Your task to perform on an android device: turn smart compose on in the gmail app Image 0: 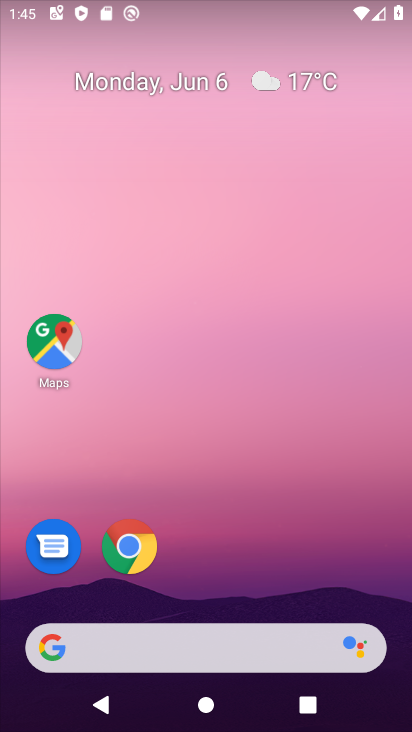
Step 0: drag from (229, 594) to (272, 240)
Your task to perform on an android device: turn smart compose on in the gmail app Image 1: 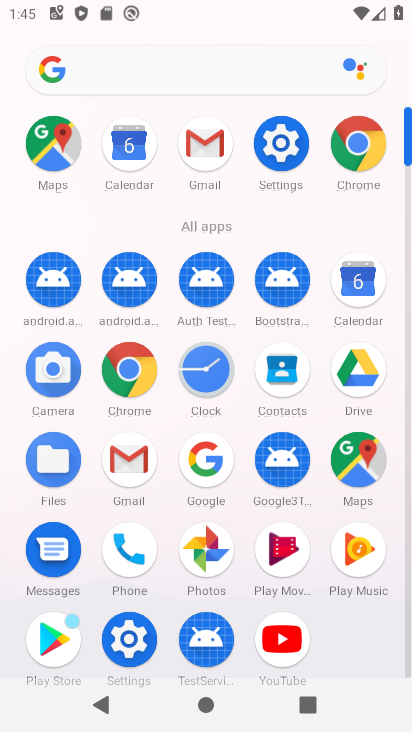
Step 1: click (207, 145)
Your task to perform on an android device: turn smart compose on in the gmail app Image 2: 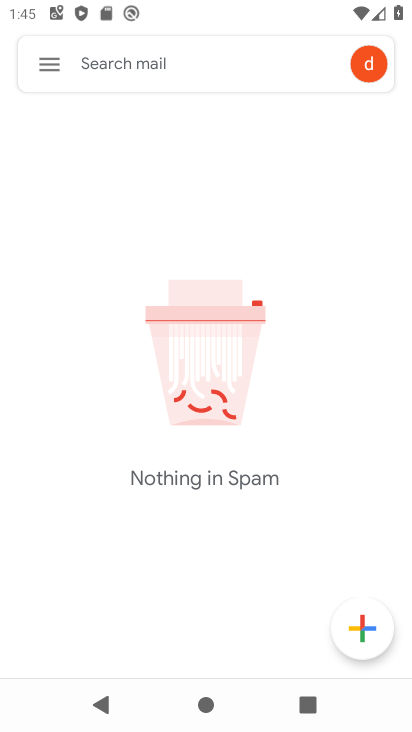
Step 2: click (43, 62)
Your task to perform on an android device: turn smart compose on in the gmail app Image 3: 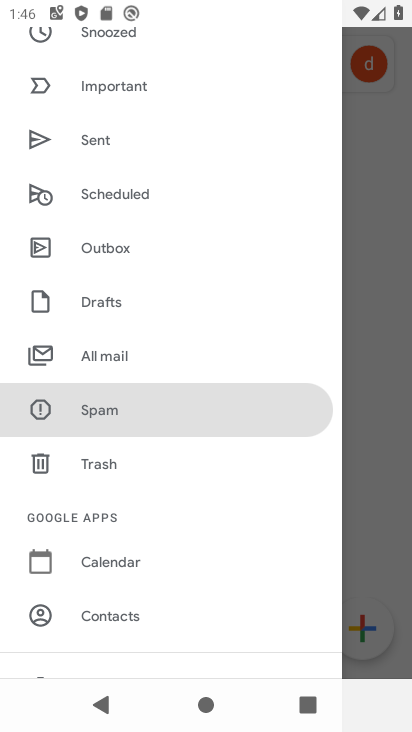
Step 3: drag from (90, 231) to (91, 599)
Your task to perform on an android device: turn smart compose on in the gmail app Image 4: 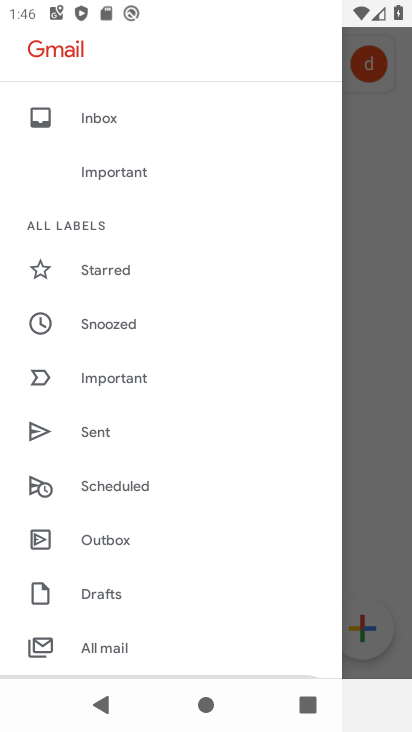
Step 4: drag from (111, 543) to (170, 265)
Your task to perform on an android device: turn smart compose on in the gmail app Image 5: 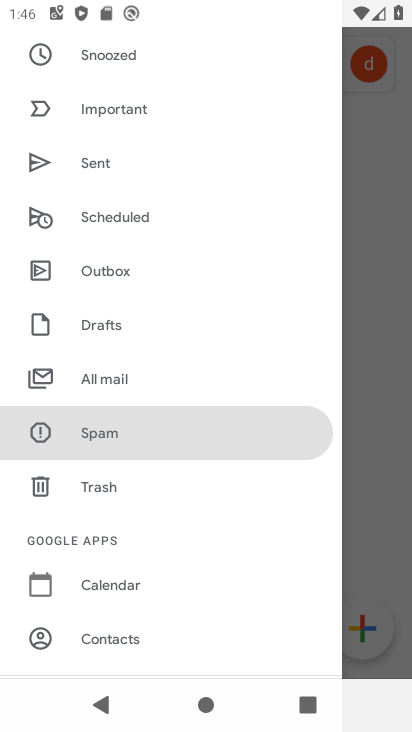
Step 5: drag from (59, 621) to (152, 283)
Your task to perform on an android device: turn smart compose on in the gmail app Image 6: 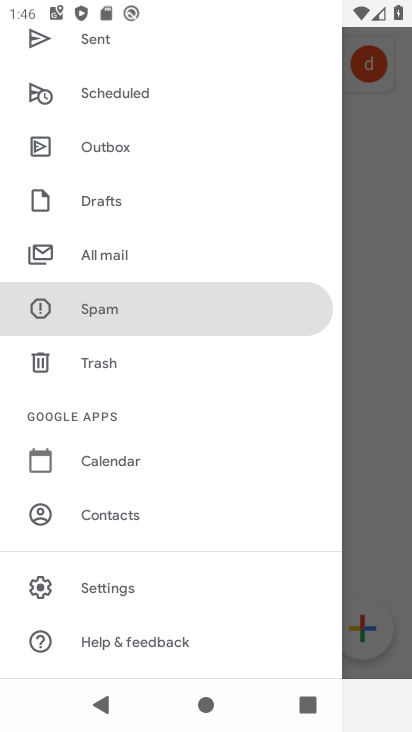
Step 6: click (102, 597)
Your task to perform on an android device: turn smart compose on in the gmail app Image 7: 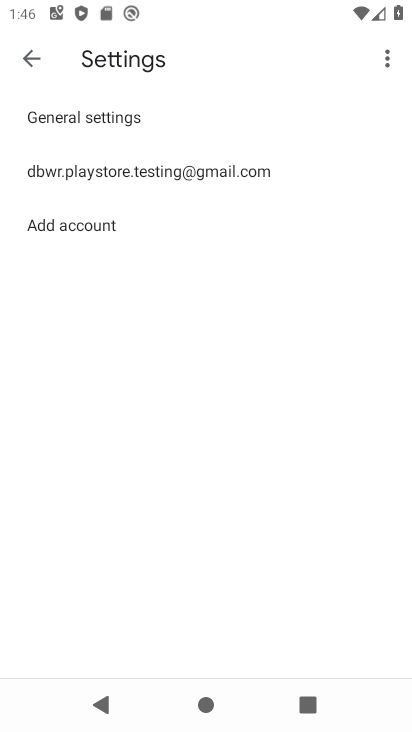
Step 7: click (181, 165)
Your task to perform on an android device: turn smart compose on in the gmail app Image 8: 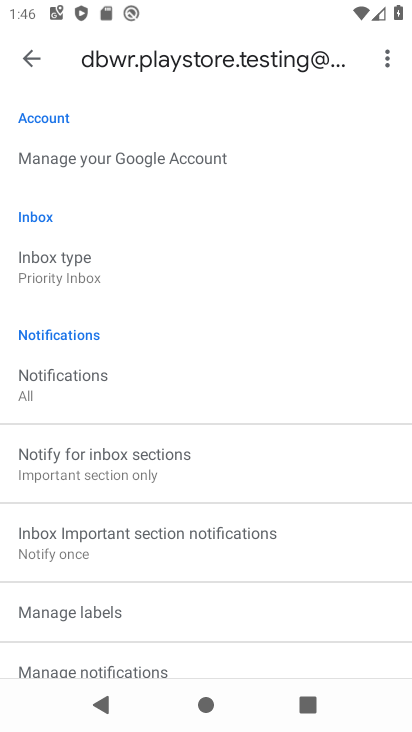
Step 8: task complete